Your task to perform on an android device: Go to Yahoo.com Image 0: 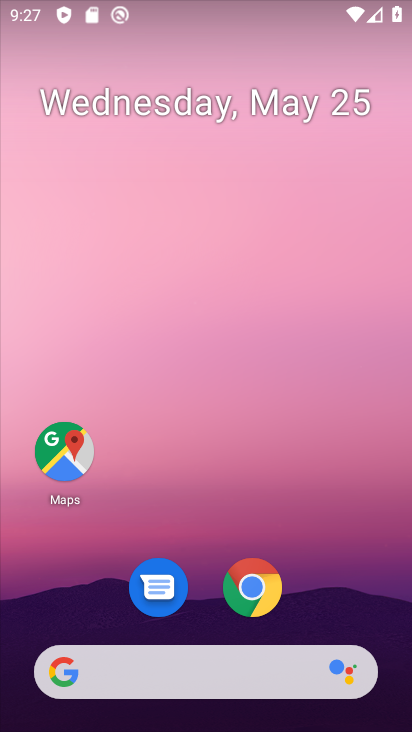
Step 0: click (254, 595)
Your task to perform on an android device: Go to Yahoo.com Image 1: 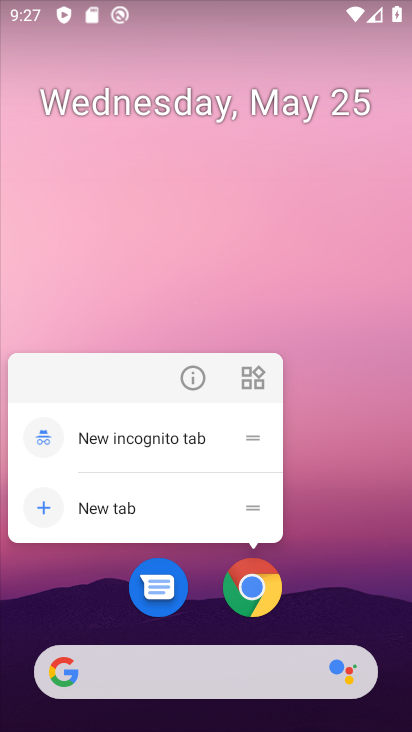
Step 1: click (275, 584)
Your task to perform on an android device: Go to Yahoo.com Image 2: 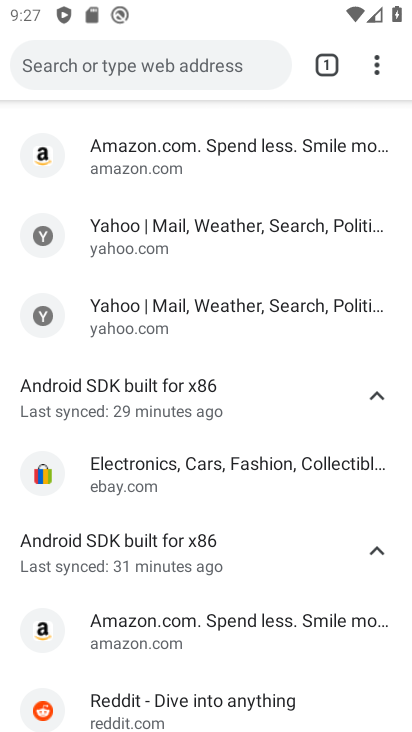
Step 2: click (165, 68)
Your task to perform on an android device: Go to Yahoo.com Image 3: 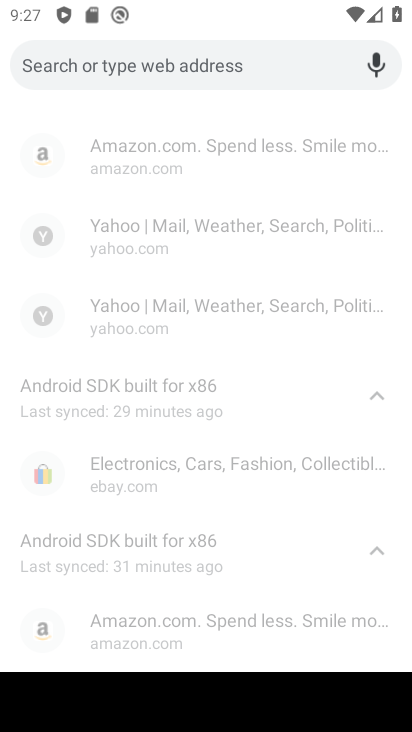
Step 3: type "Yahoo.com"
Your task to perform on an android device: Go to Yahoo.com Image 4: 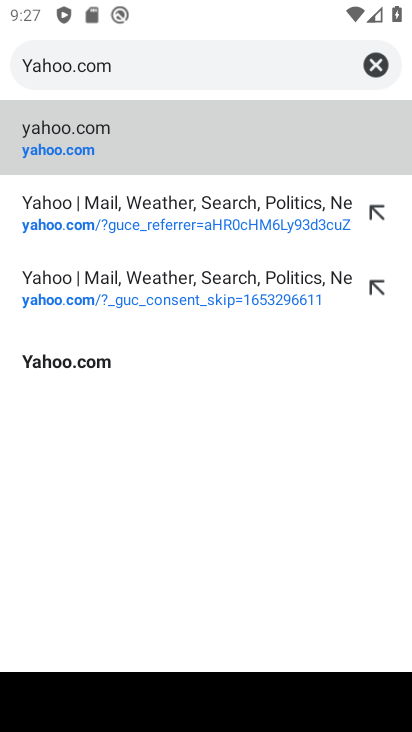
Step 4: click (99, 122)
Your task to perform on an android device: Go to Yahoo.com Image 5: 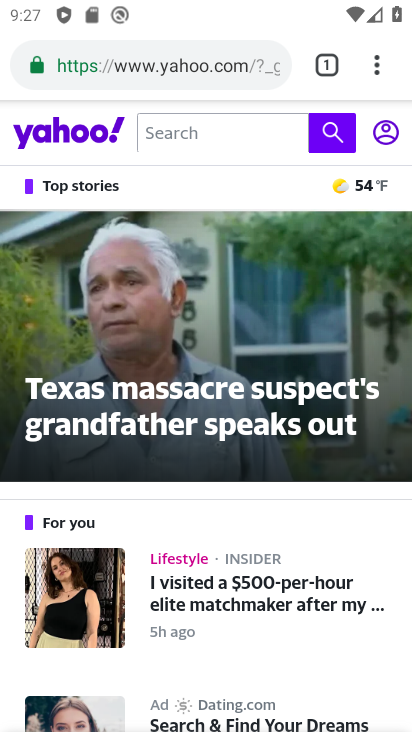
Step 5: task complete